Your task to perform on an android device: change the clock display to show seconds Image 0: 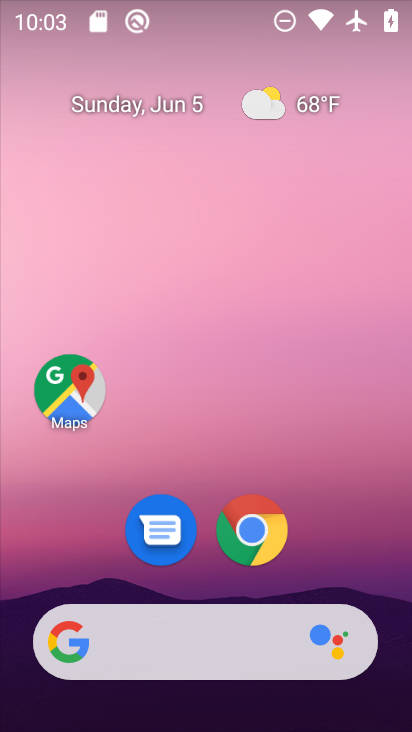
Step 0: drag from (394, 634) to (333, 105)
Your task to perform on an android device: change the clock display to show seconds Image 1: 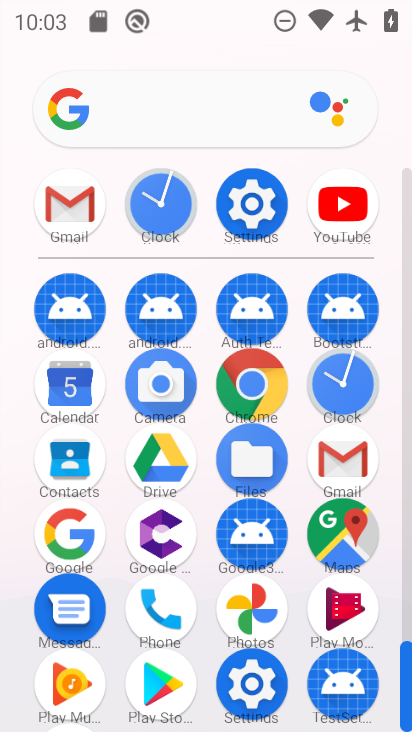
Step 1: click (343, 384)
Your task to perform on an android device: change the clock display to show seconds Image 2: 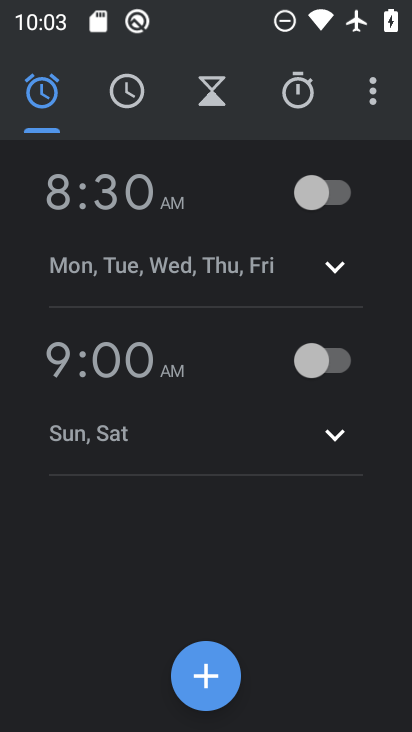
Step 2: click (370, 97)
Your task to perform on an android device: change the clock display to show seconds Image 3: 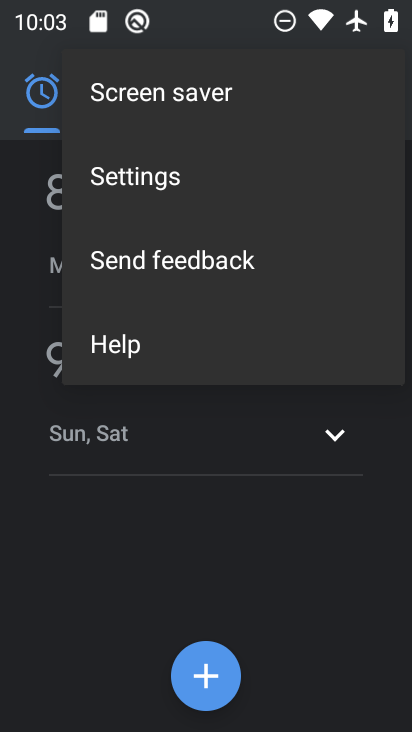
Step 3: click (167, 187)
Your task to perform on an android device: change the clock display to show seconds Image 4: 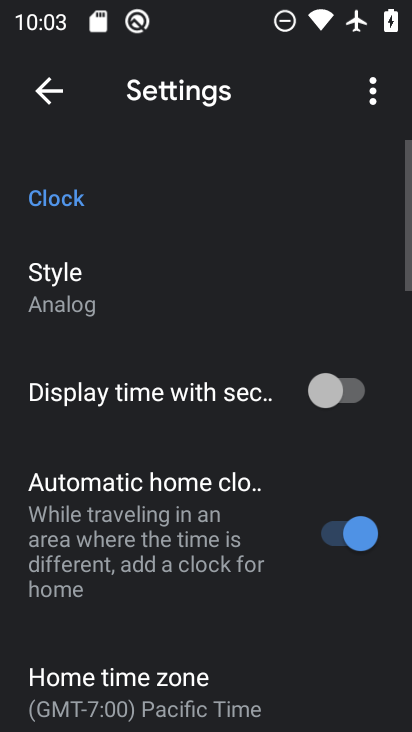
Step 4: click (360, 394)
Your task to perform on an android device: change the clock display to show seconds Image 5: 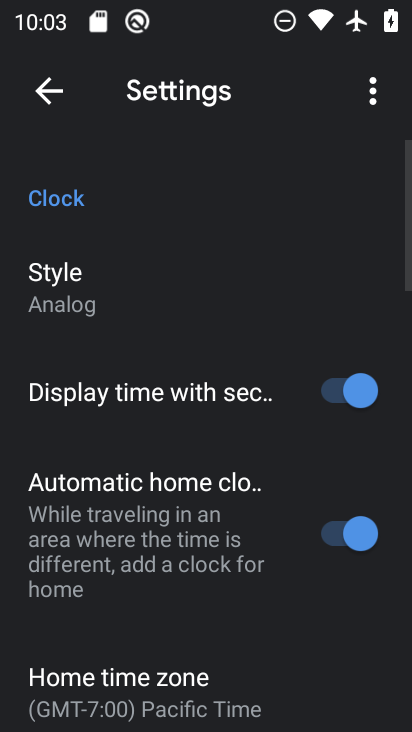
Step 5: task complete